Your task to perform on an android device: read, delete, or share a saved page in the chrome app Image 0: 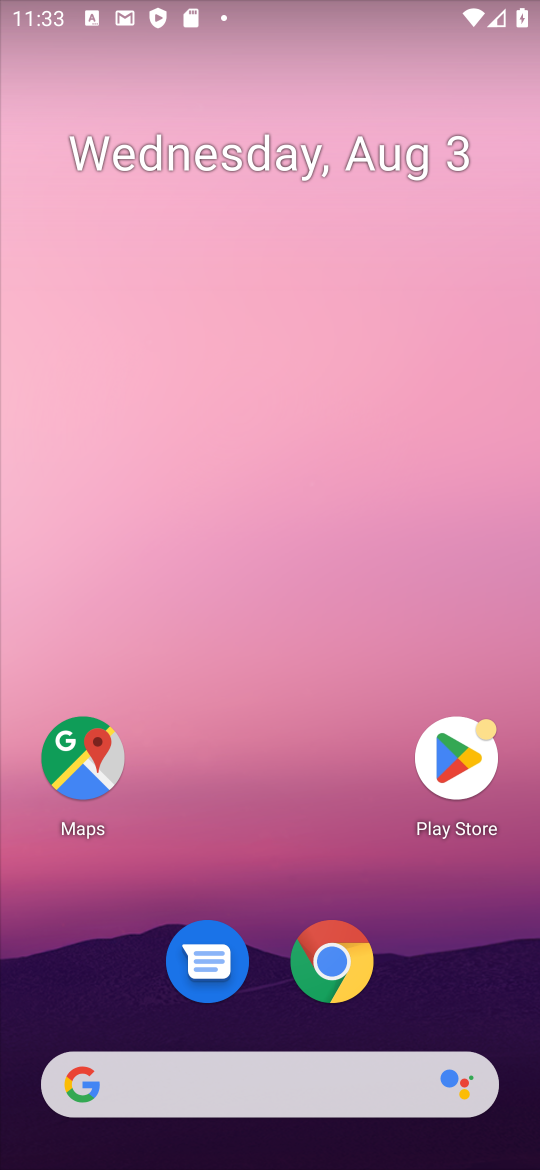
Step 0: click (283, 796)
Your task to perform on an android device: read, delete, or share a saved page in the chrome app Image 1: 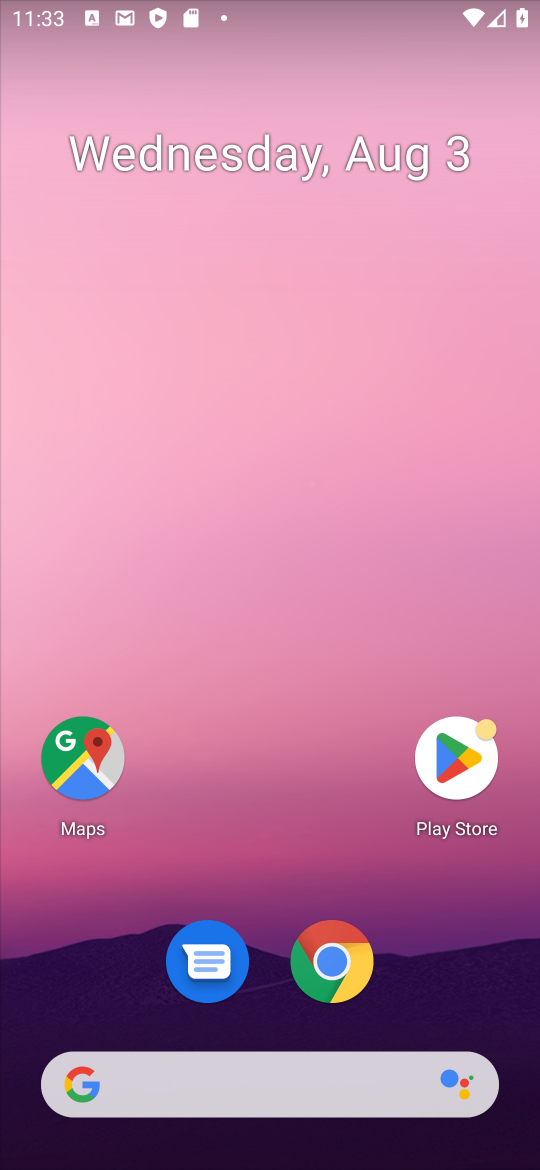
Step 1: drag from (216, 327) to (195, 62)
Your task to perform on an android device: read, delete, or share a saved page in the chrome app Image 2: 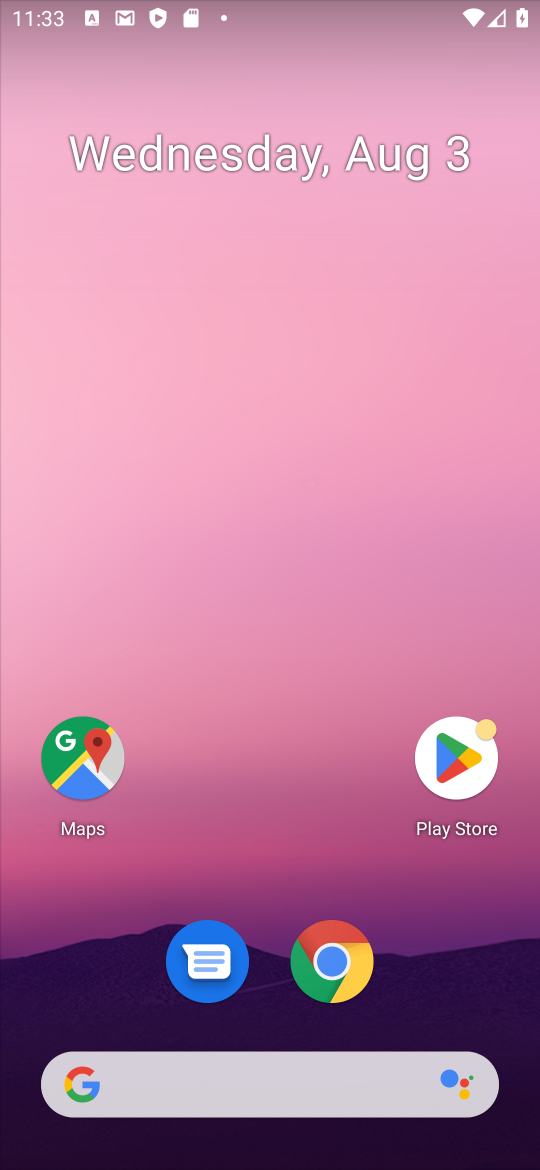
Step 2: click (322, 968)
Your task to perform on an android device: read, delete, or share a saved page in the chrome app Image 3: 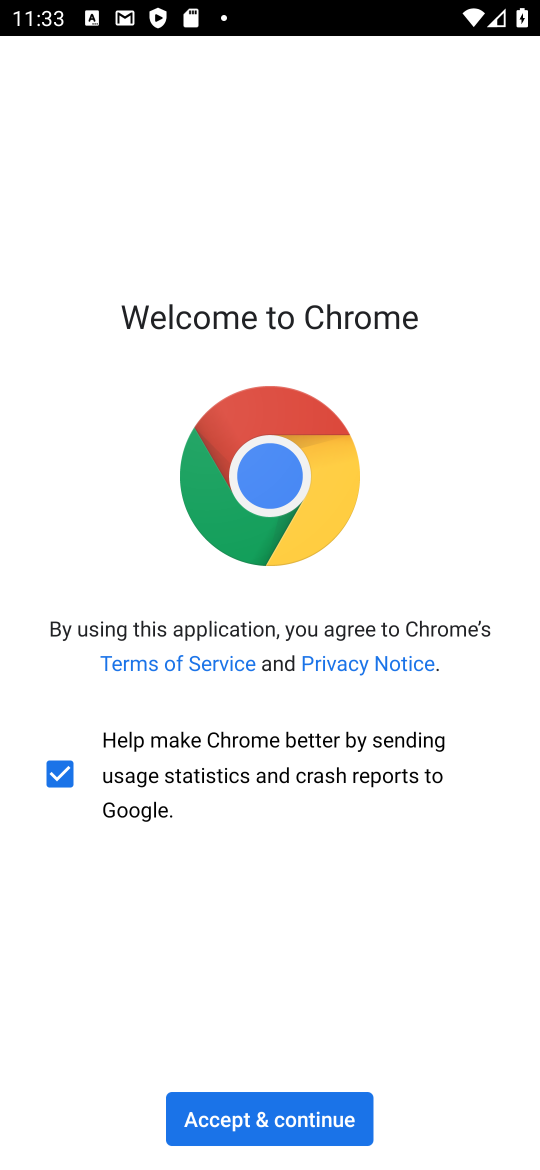
Step 3: click (289, 1119)
Your task to perform on an android device: read, delete, or share a saved page in the chrome app Image 4: 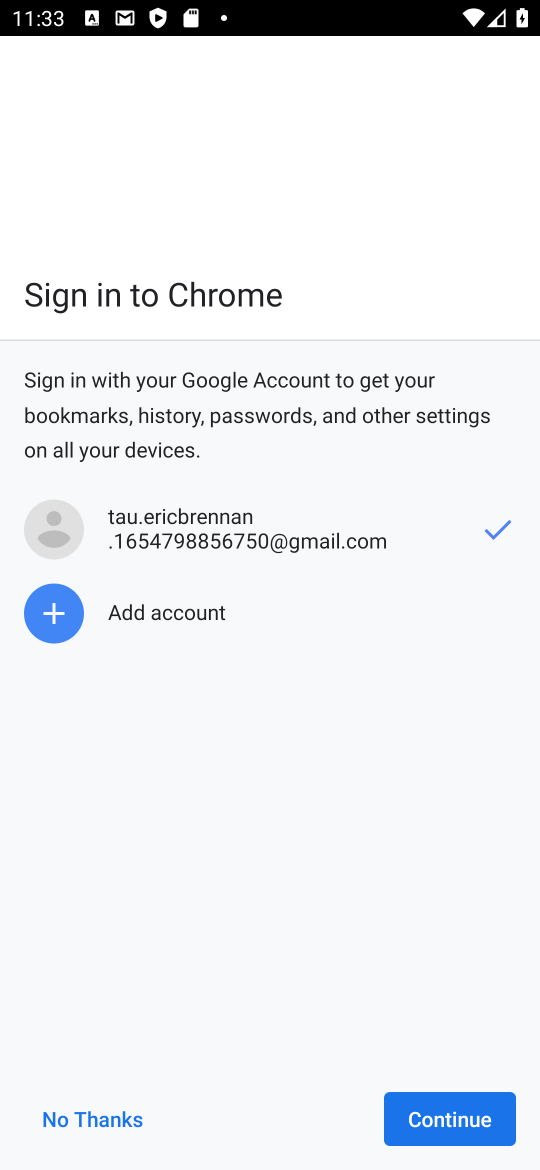
Step 4: click (423, 1127)
Your task to perform on an android device: read, delete, or share a saved page in the chrome app Image 5: 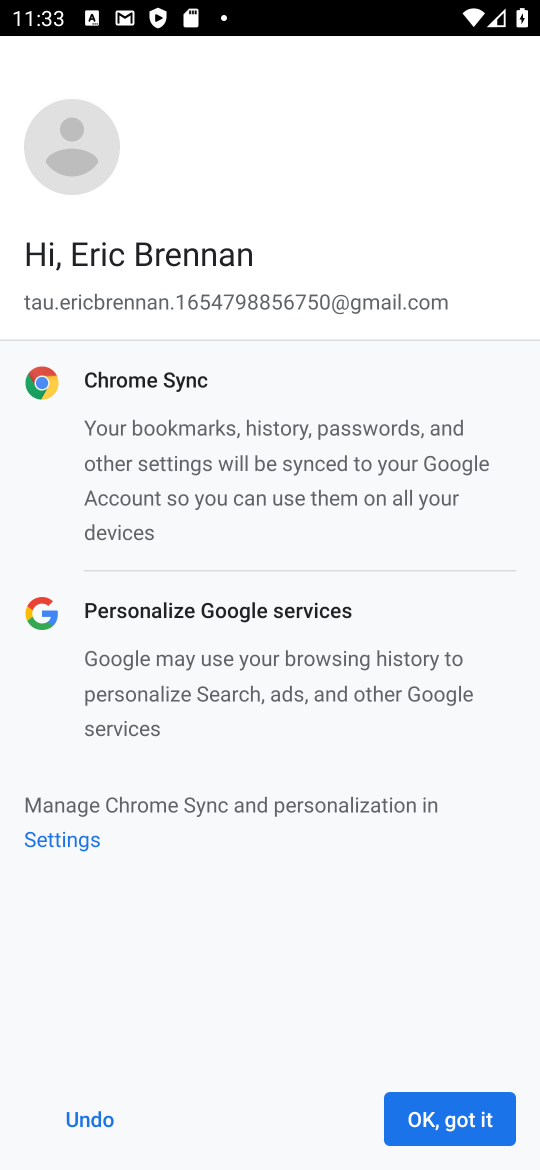
Step 5: click (426, 1122)
Your task to perform on an android device: read, delete, or share a saved page in the chrome app Image 6: 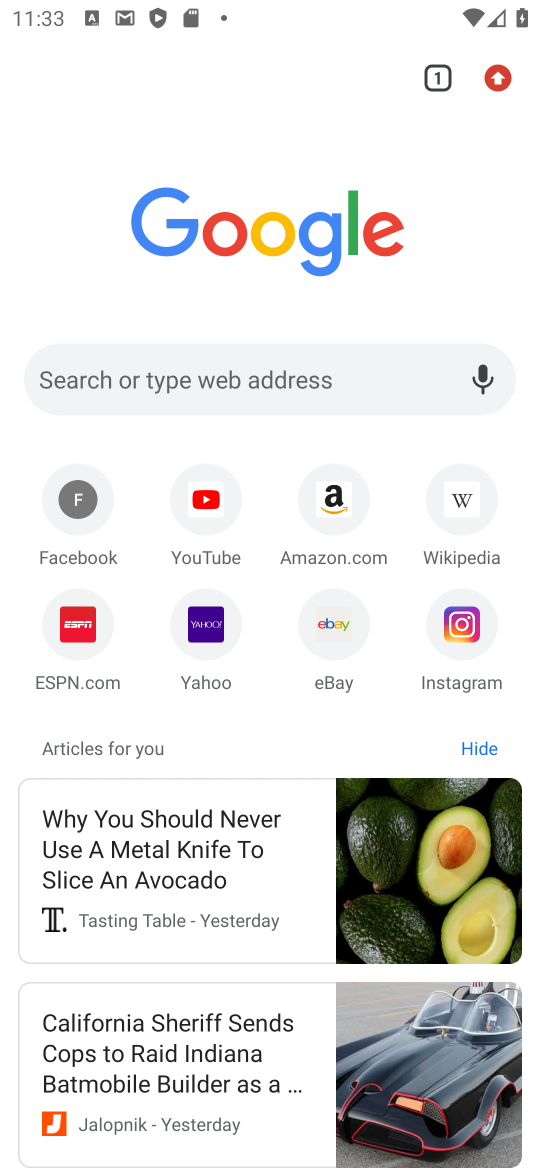
Step 6: click (497, 82)
Your task to perform on an android device: read, delete, or share a saved page in the chrome app Image 7: 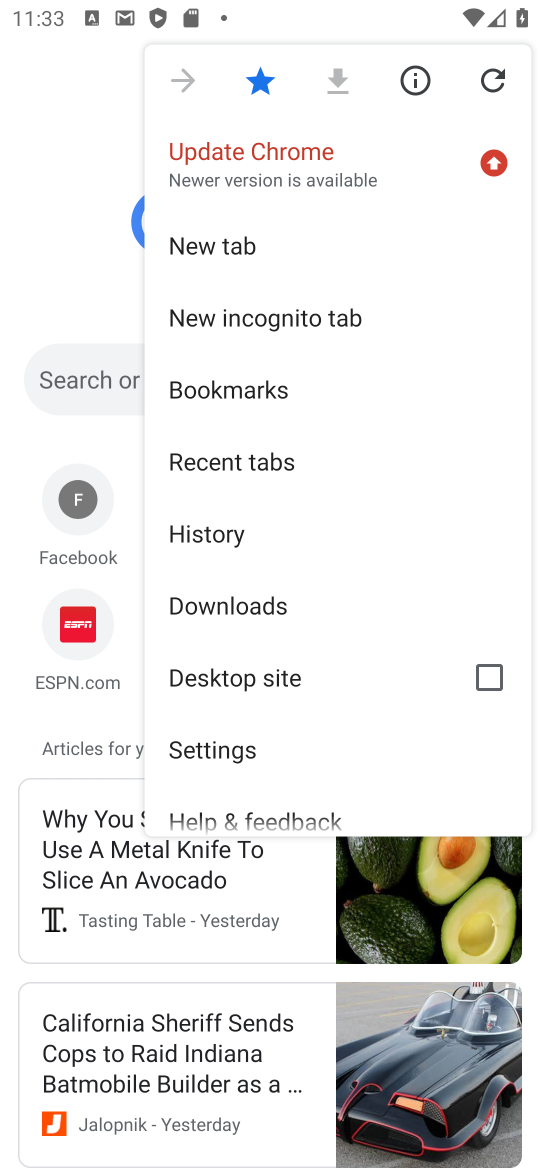
Step 7: click (246, 600)
Your task to perform on an android device: read, delete, or share a saved page in the chrome app Image 8: 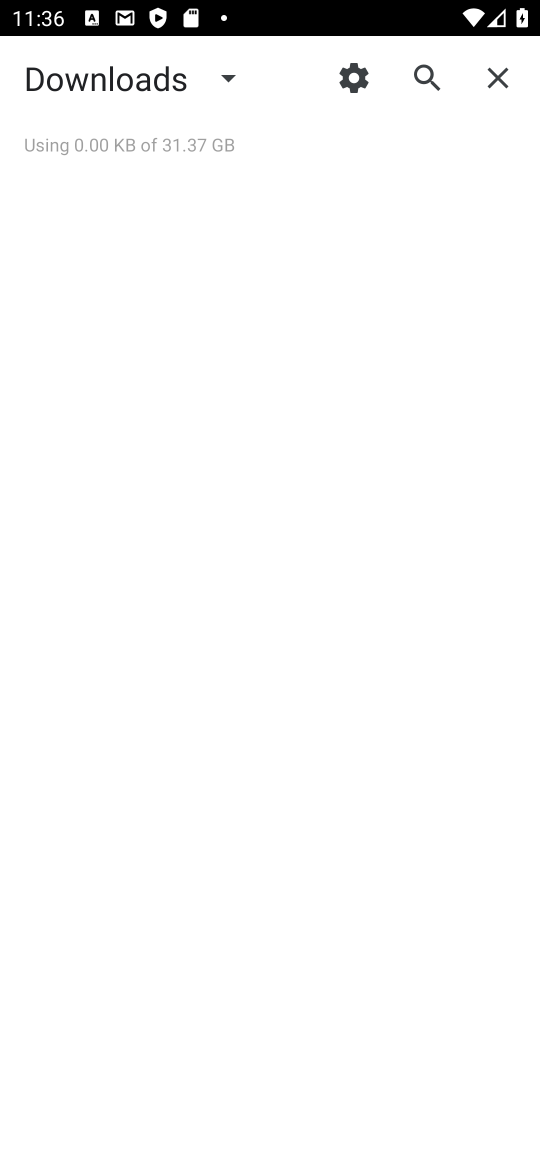
Step 8: task complete